Your task to perform on an android device: Open display settings Image 0: 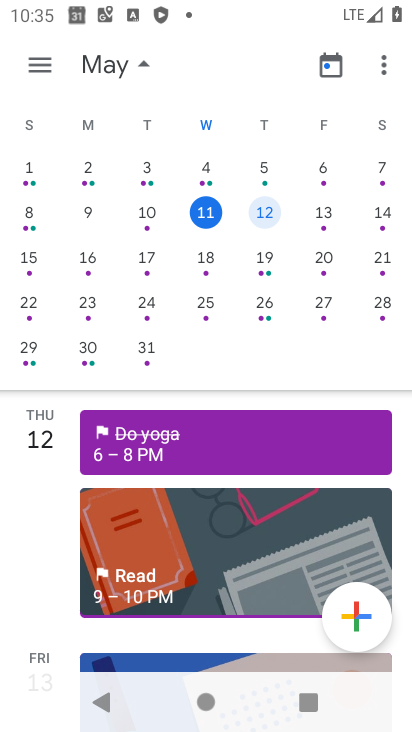
Step 0: press home button
Your task to perform on an android device: Open display settings Image 1: 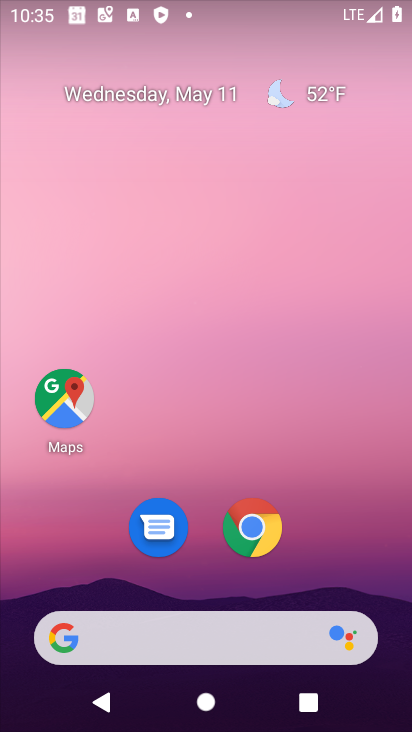
Step 1: drag from (312, 518) to (410, 256)
Your task to perform on an android device: Open display settings Image 2: 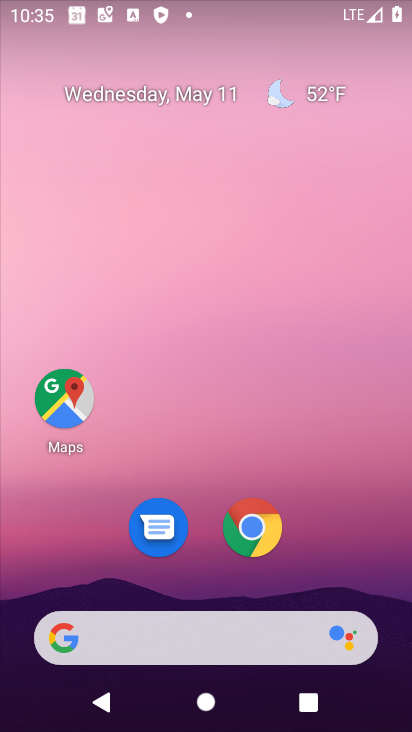
Step 2: drag from (381, 547) to (376, 9)
Your task to perform on an android device: Open display settings Image 3: 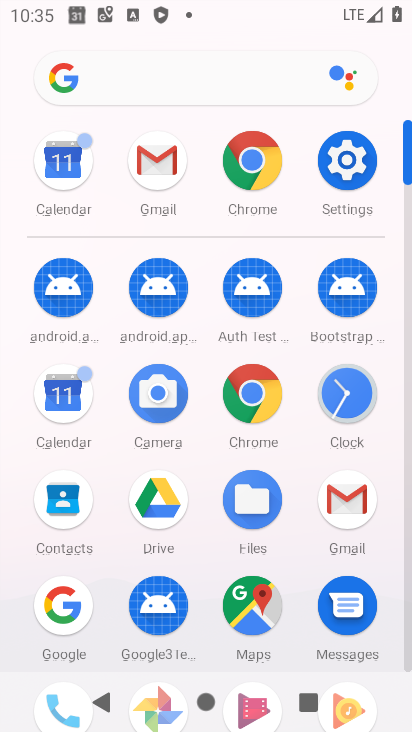
Step 3: click (320, 163)
Your task to perform on an android device: Open display settings Image 4: 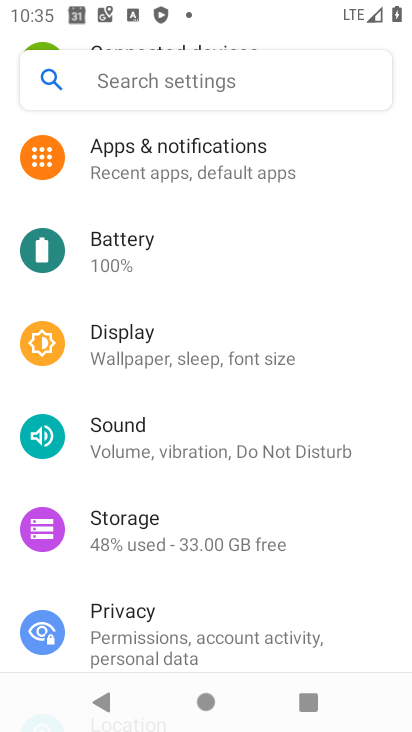
Step 4: click (173, 346)
Your task to perform on an android device: Open display settings Image 5: 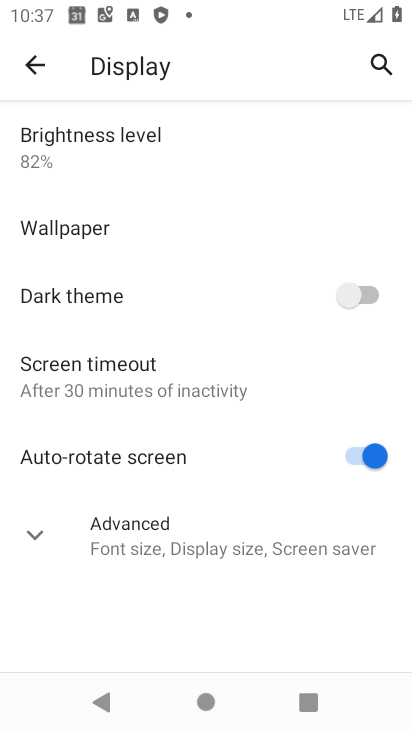
Step 5: click (84, 385)
Your task to perform on an android device: Open display settings Image 6: 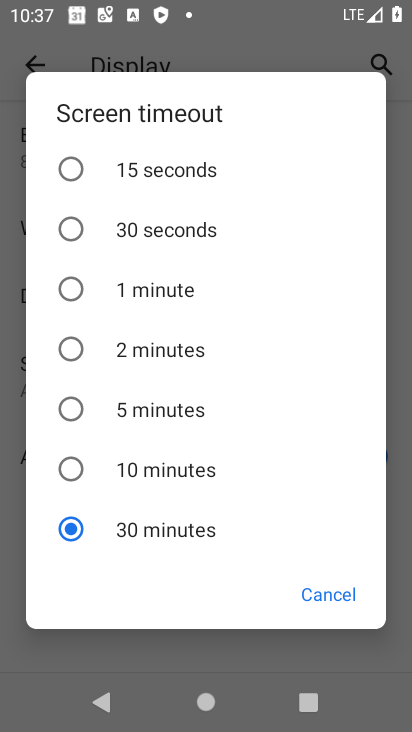
Step 6: task complete